Your task to perform on an android device: change notifications settings Image 0: 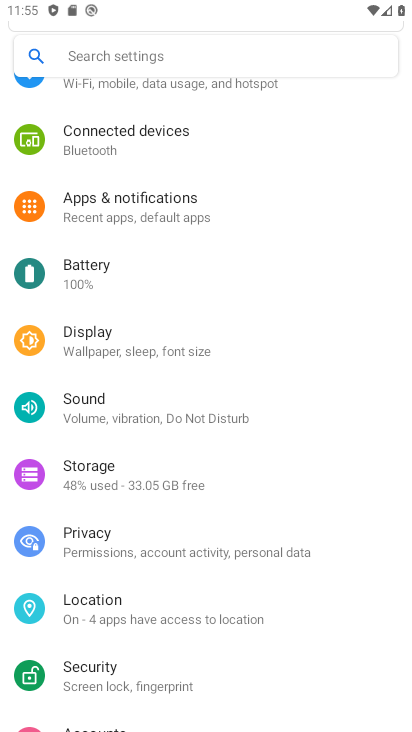
Step 0: click (138, 211)
Your task to perform on an android device: change notifications settings Image 1: 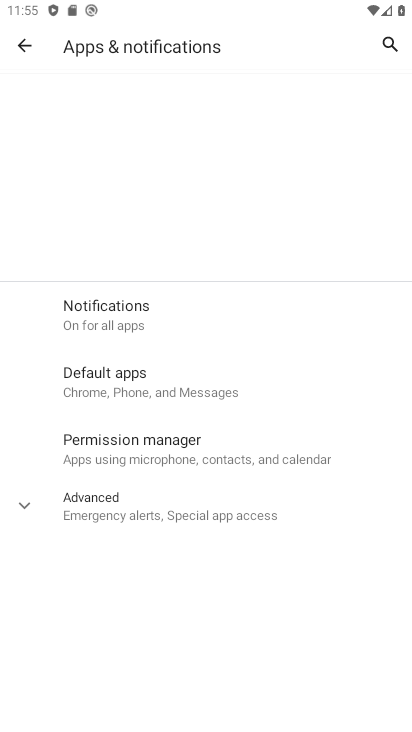
Step 1: click (134, 206)
Your task to perform on an android device: change notifications settings Image 2: 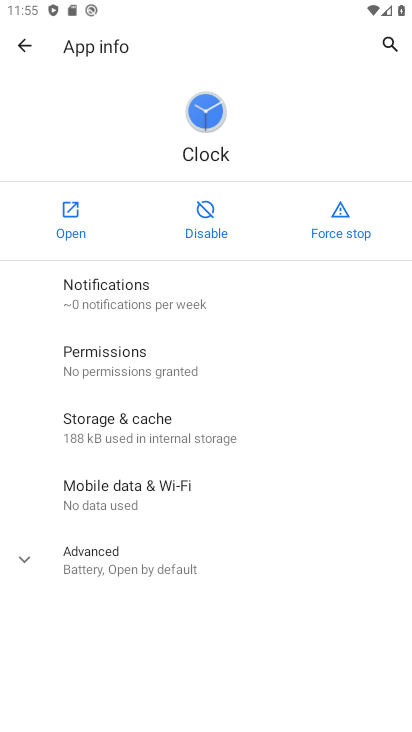
Step 2: click (103, 317)
Your task to perform on an android device: change notifications settings Image 3: 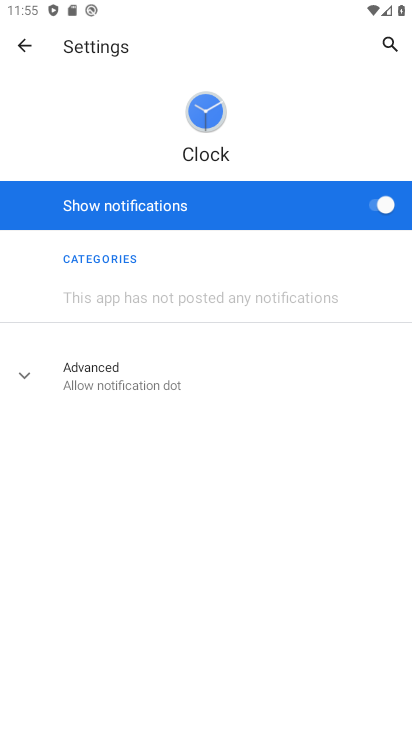
Step 3: click (18, 46)
Your task to perform on an android device: change notifications settings Image 4: 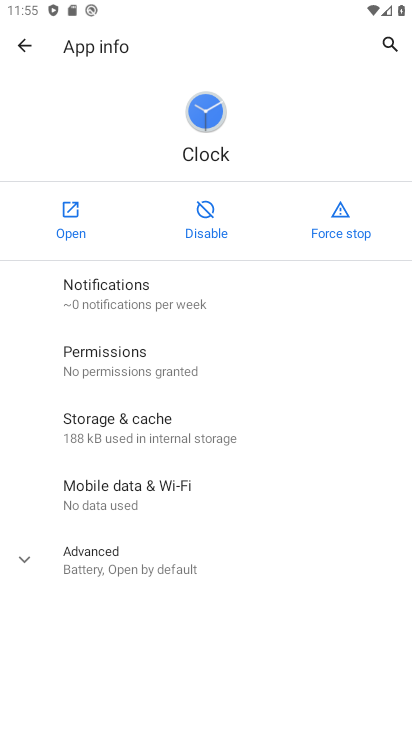
Step 4: click (117, 298)
Your task to perform on an android device: change notifications settings Image 5: 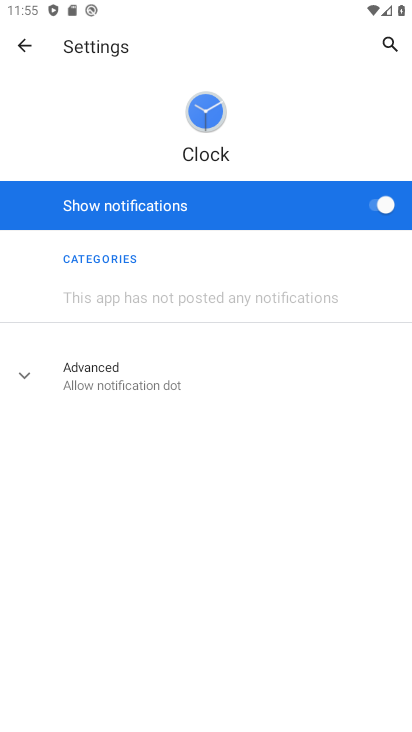
Step 5: click (19, 42)
Your task to perform on an android device: change notifications settings Image 6: 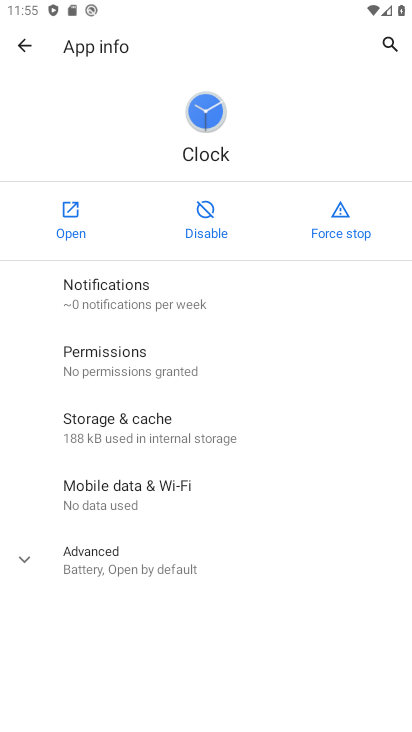
Step 6: click (20, 44)
Your task to perform on an android device: change notifications settings Image 7: 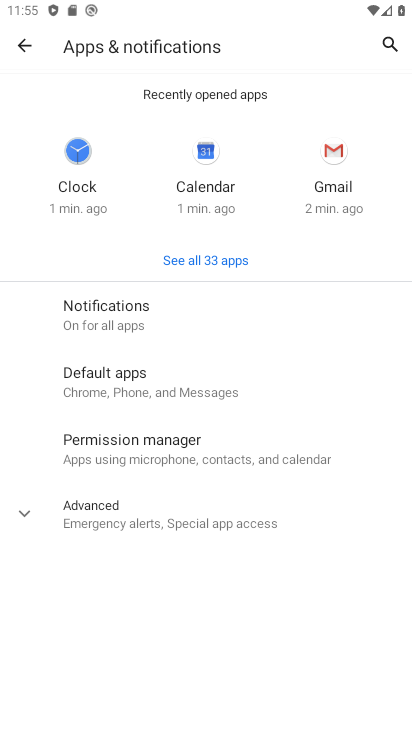
Step 7: click (83, 300)
Your task to perform on an android device: change notifications settings Image 8: 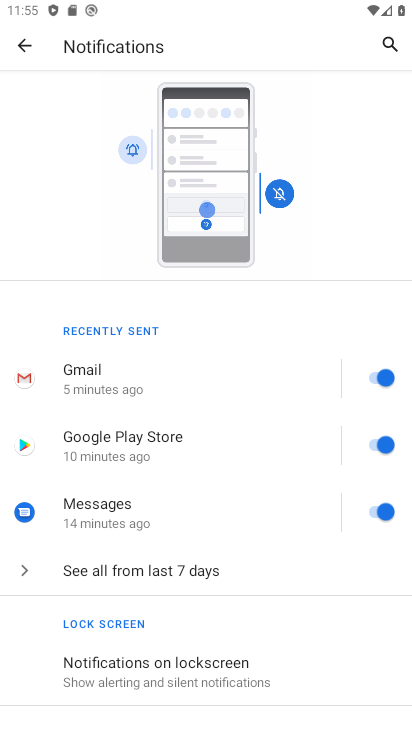
Step 8: click (111, 314)
Your task to perform on an android device: change notifications settings Image 9: 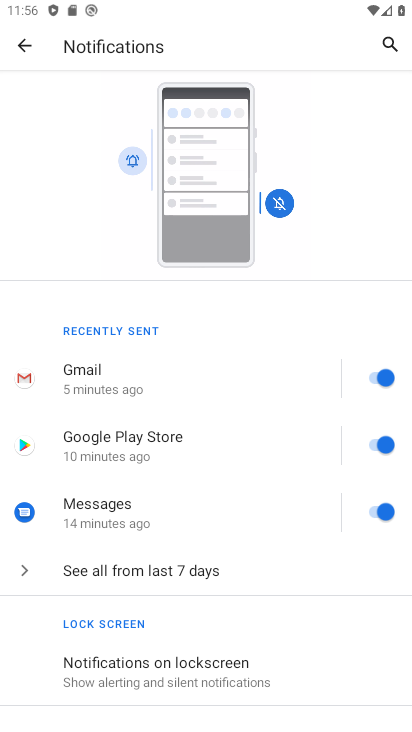
Step 9: click (119, 660)
Your task to perform on an android device: change notifications settings Image 10: 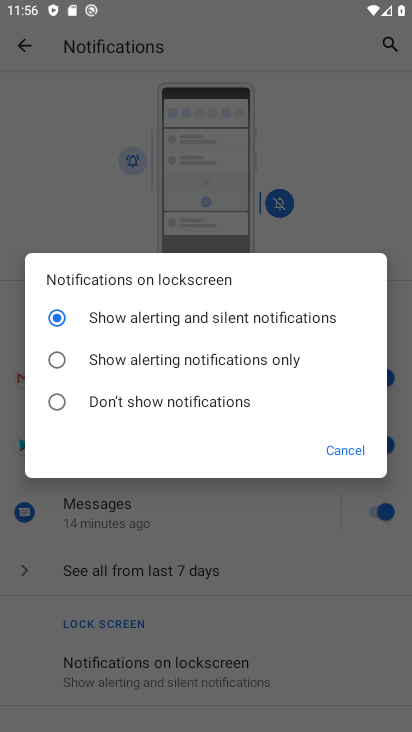
Step 10: click (60, 359)
Your task to perform on an android device: change notifications settings Image 11: 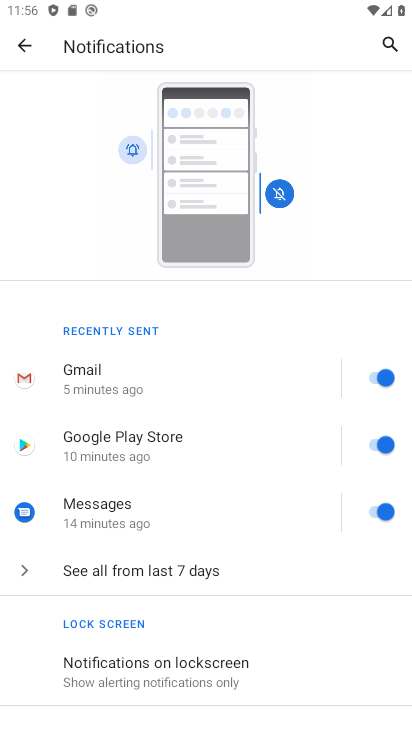
Step 11: click (381, 379)
Your task to perform on an android device: change notifications settings Image 12: 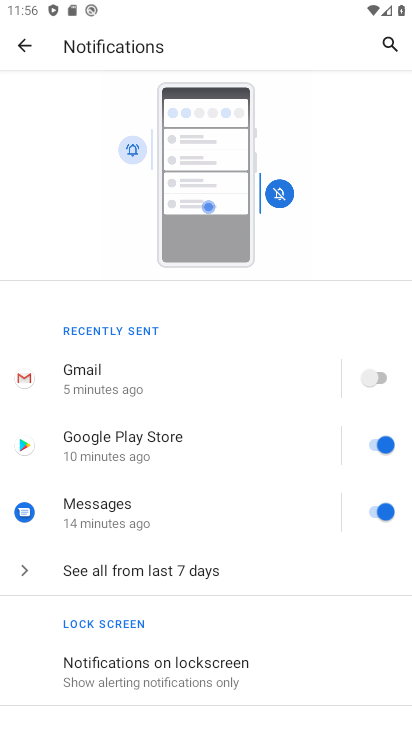
Step 12: click (385, 445)
Your task to perform on an android device: change notifications settings Image 13: 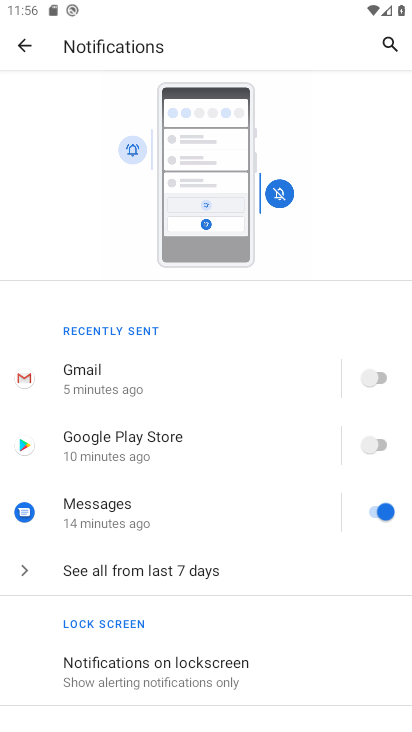
Step 13: click (382, 511)
Your task to perform on an android device: change notifications settings Image 14: 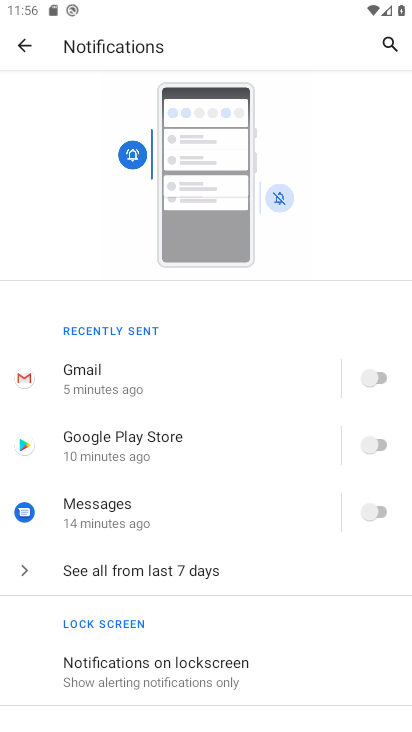
Step 14: task complete